Your task to perform on an android device: Is it going to rain this weekend? Image 0: 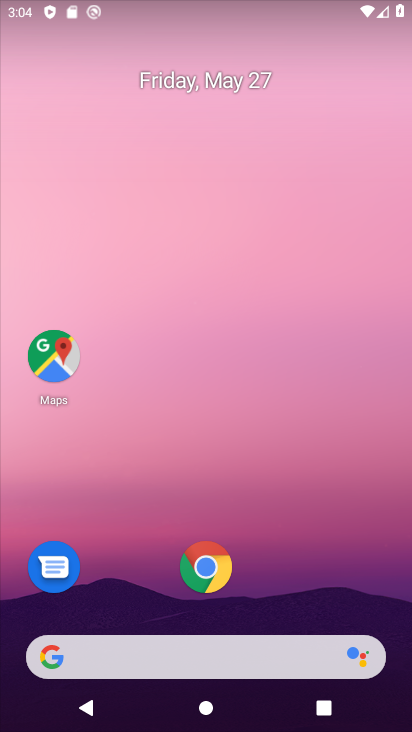
Step 0: click (182, 665)
Your task to perform on an android device: Is it going to rain this weekend? Image 1: 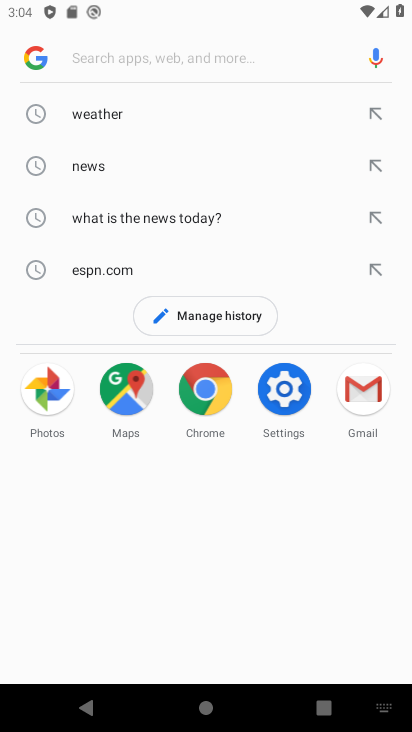
Step 1: click (100, 122)
Your task to perform on an android device: Is it going to rain this weekend? Image 2: 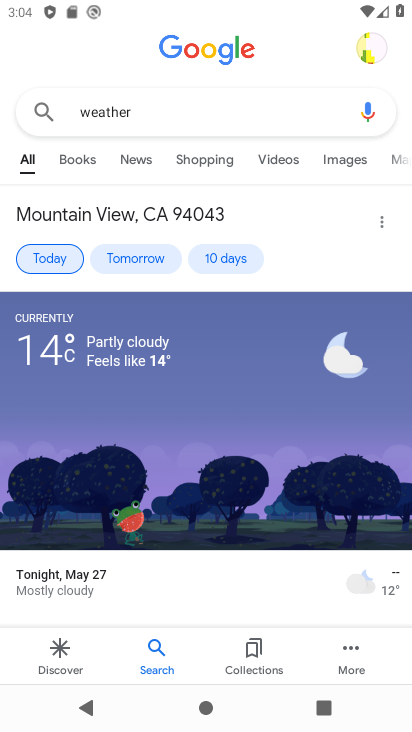
Step 2: click (224, 246)
Your task to perform on an android device: Is it going to rain this weekend? Image 3: 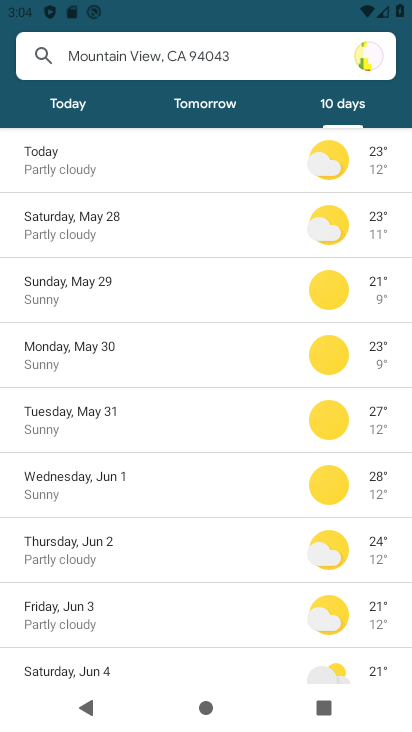
Step 3: task complete